Your task to perform on an android device: open app "Duolingo: language lessons" Image 0: 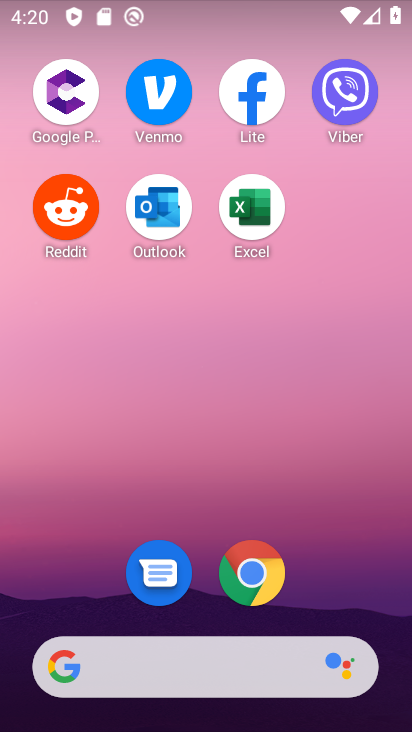
Step 0: drag from (195, 118) to (195, 83)
Your task to perform on an android device: open app "Duolingo: language lessons" Image 1: 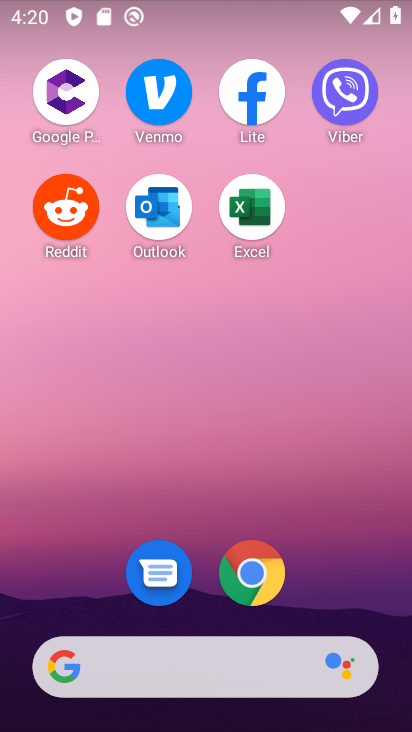
Step 1: drag from (211, 499) to (209, 130)
Your task to perform on an android device: open app "Duolingo: language lessons" Image 2: 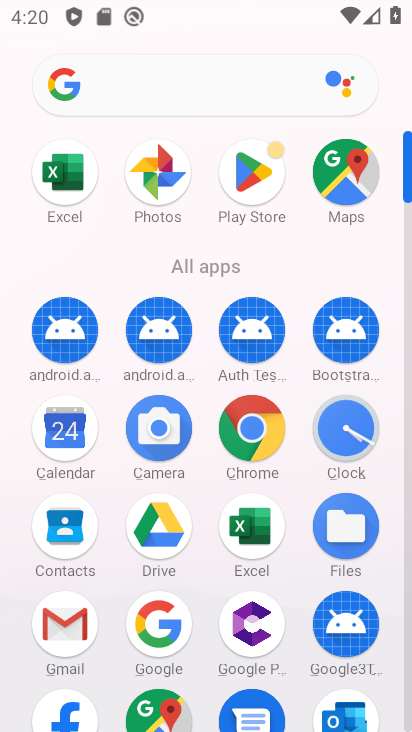
Step 2: click (270, 171)
Your task to perform on an android device: open app "Duolingo: language lessons" Image 3: 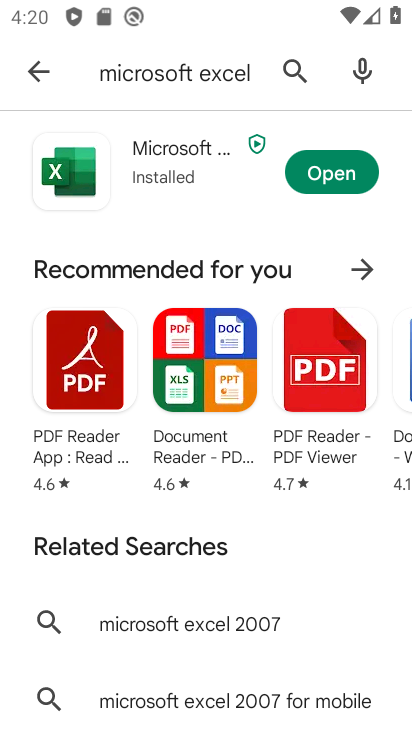
Step 3: click (345, 179)
Your task to perform on an android device: open app "Duolingo: language lessons" Image 4: 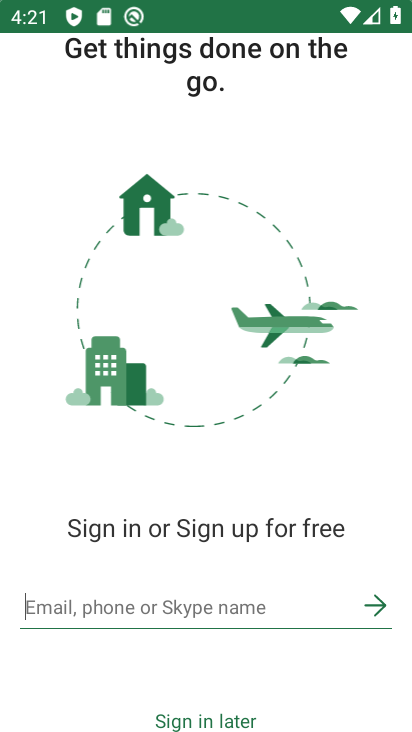
Step 4: press back button
Your task to perform on an android device: open app "Duolingo: language lessons" Image 5: 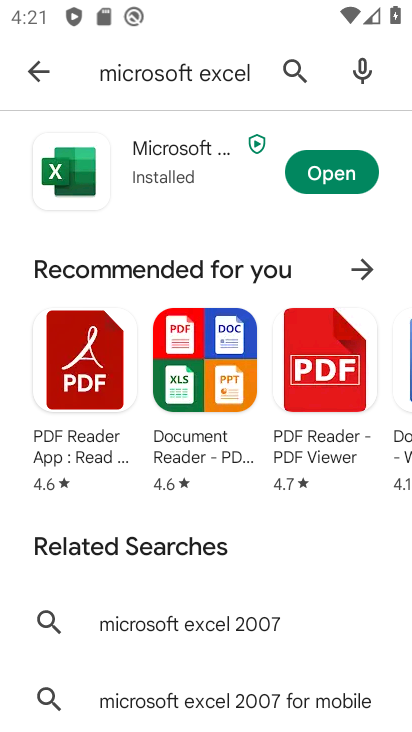
Step 5: click (284, 77)
Your task to perform on an android device: open app "Duolingo: language lessons" Image 6: 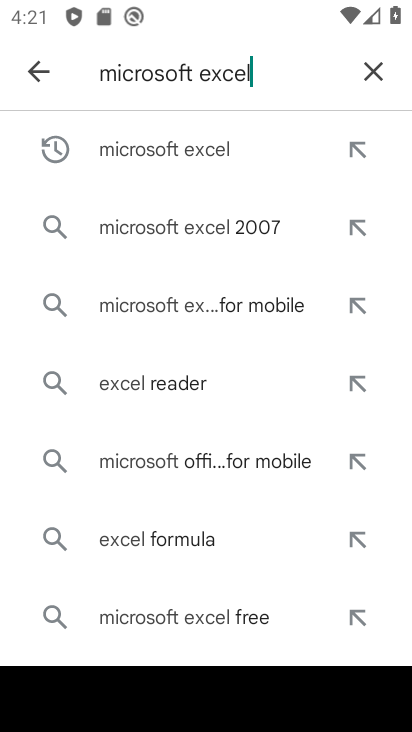
Step 6: click (370, 69)
Your task to perform on an android device: open app "Duolingo: language lessons" Image 7: 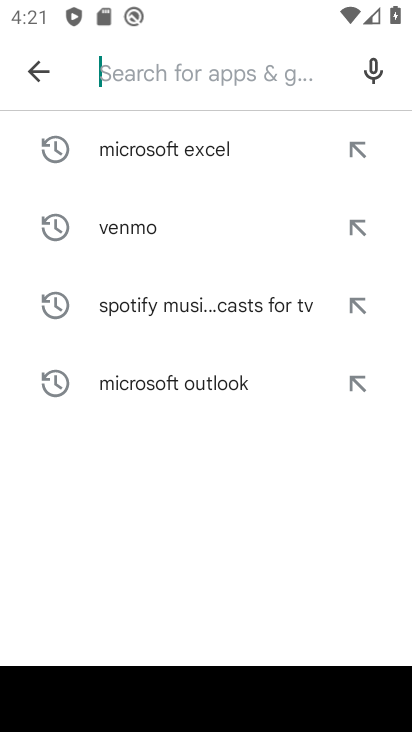
Step 7: type "Duolingo: language lessons"
Your task to perform on an android device: open app "Duolingo: language lessons" Image 8: 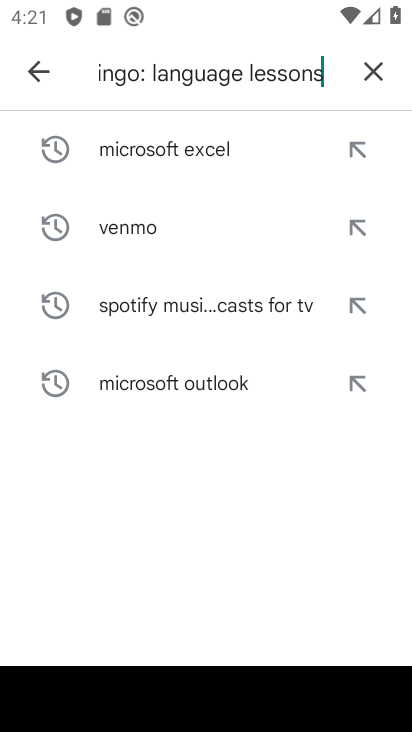
Step 8: type ""
Your task to perform on an android device: open app "Duolingo: language lessons" Image 9: 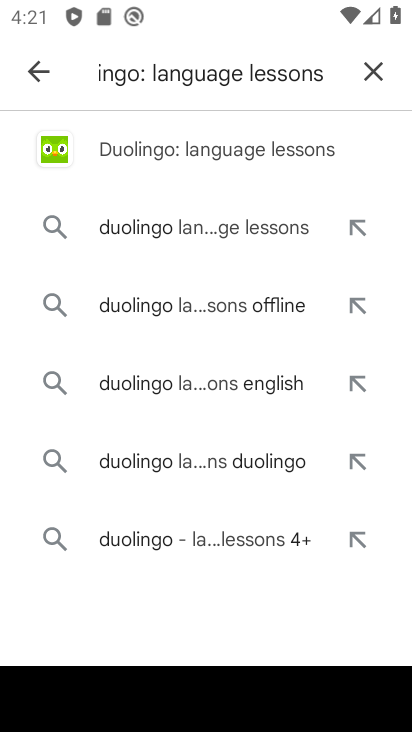
Step 9: click (179, 162)
Your task to perform on an android device: open app "Duolingo: language lessons" Image 10: 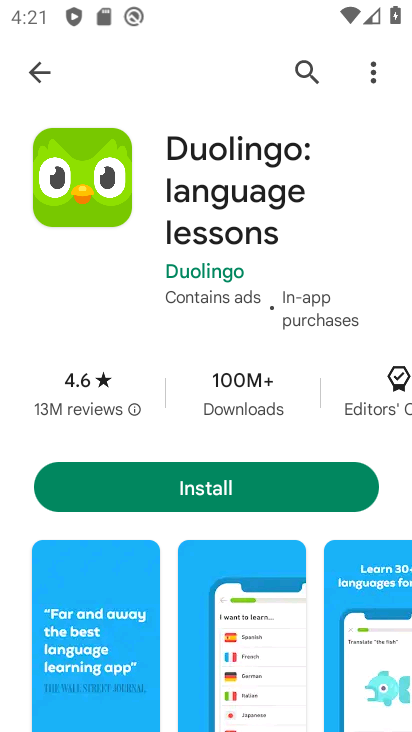
Step 10: task complete